Your task to perform on an android device: Show me popular games on the Play Store Image 0: 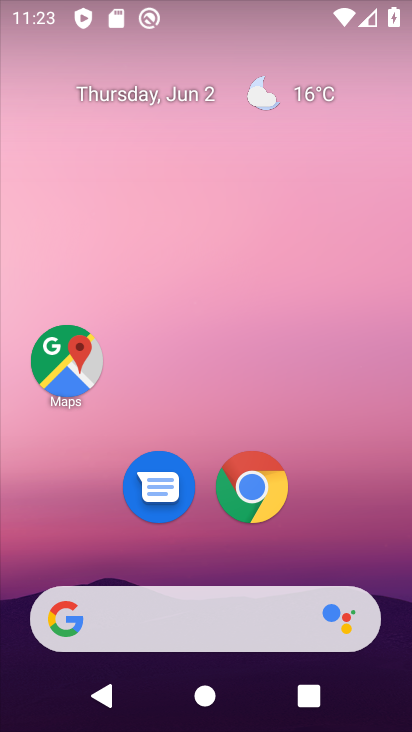
Step 0: press home button
Your task to perform on an android device: Show me popular games on the Play Store Image 1: 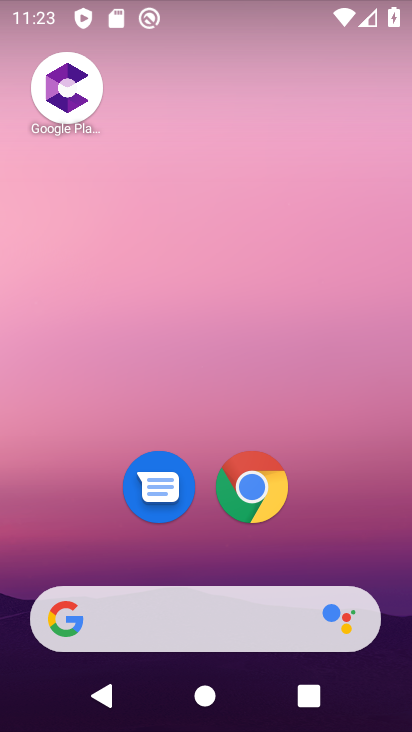
Step 1: drag from (327, 284) to (318, 182)
Your task to perform on an android device: Show me popular games on the Play Store Image 2: 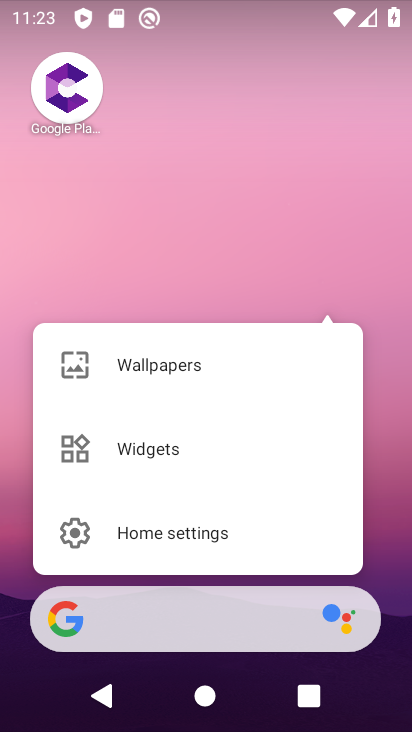
Step 2: click (389, 513)
Your task to perform on an android device: Show me popular games on the Play Store Image 3: 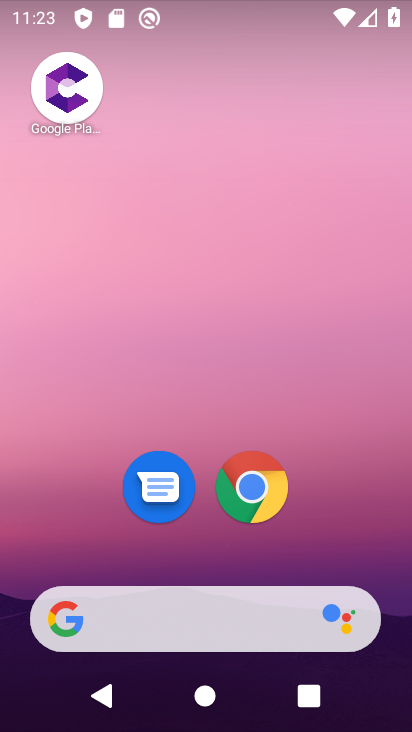
Step 3: drag from (369, 533) to (279, 58)
Your task to perform on an android device: Show me popular games on the Play Store Image 4: 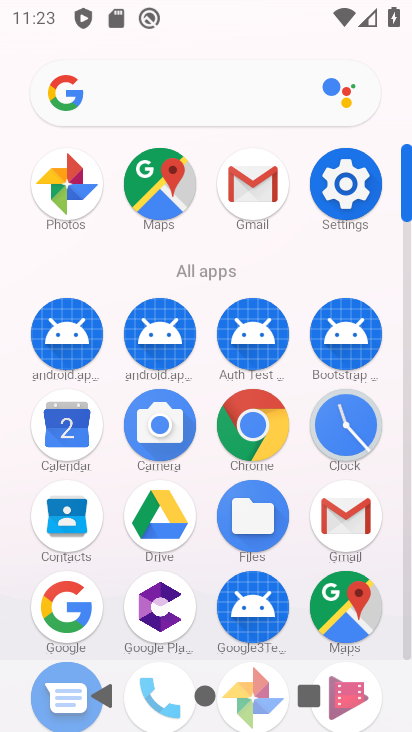
Step 4: drag from (202, 569) to (182, 280)
Your task to perform on an android device: Show me popular games on the Play Store Image 5: 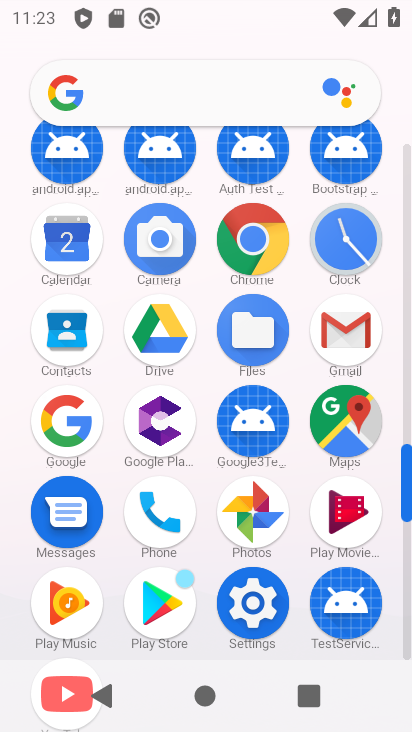
Step 5: click (170, 610)
Your task to perform on an android device: Show me popular games on the Play Store Image 6: 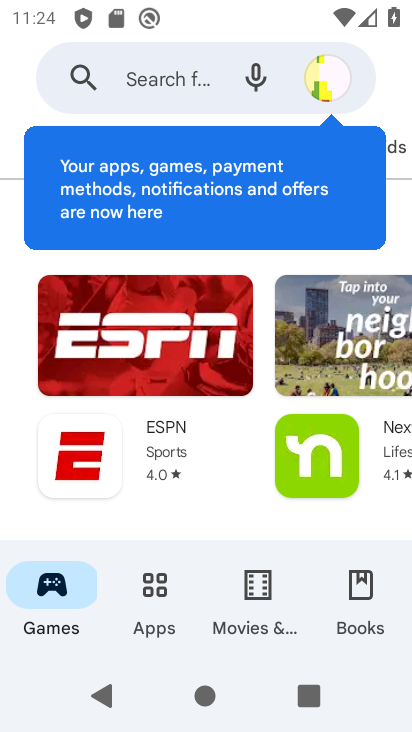
Step 6: drag from (183, 522) to (160, 118)
Your task to perform on an android device: Show me popular games on the Play Store Image 7: 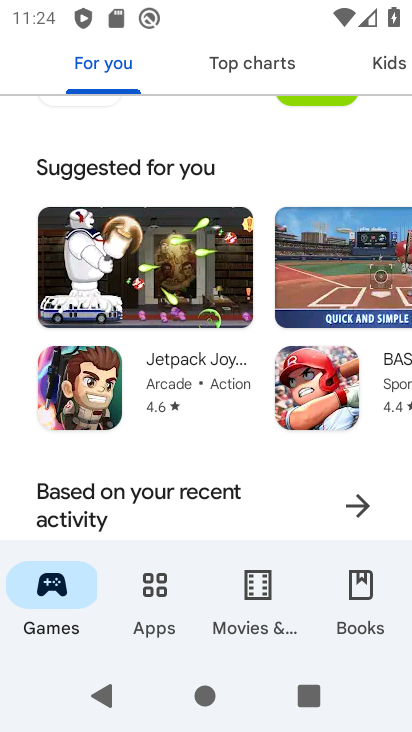
Step 7: drag from (166, 519) to (153, 31)
Your task to perform on an android device: Show me popular games on the Play Store Image 8: 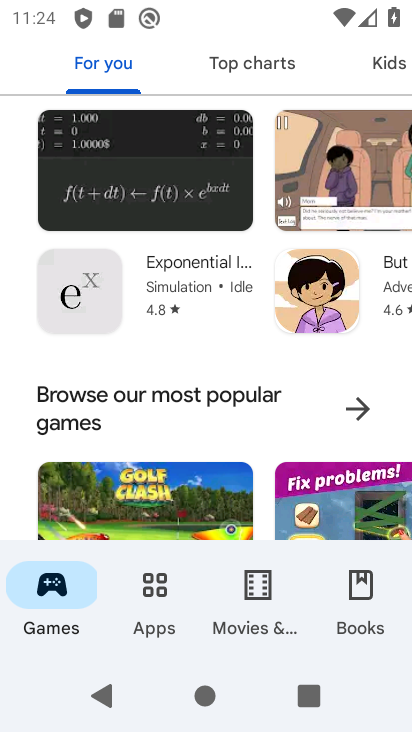
Step 8: click (345, 375)
Your task to perform on an android device: Show me popular games on the Play Store Image 9: 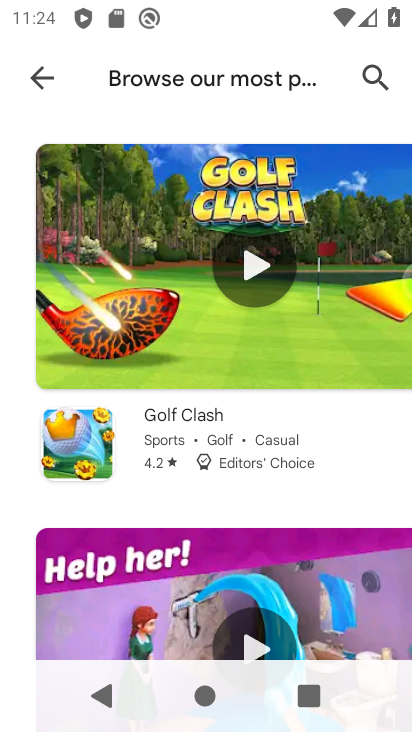
Step 9: task complete